Your task to perform on an android device: Find coffee shops on Maps Image 0: 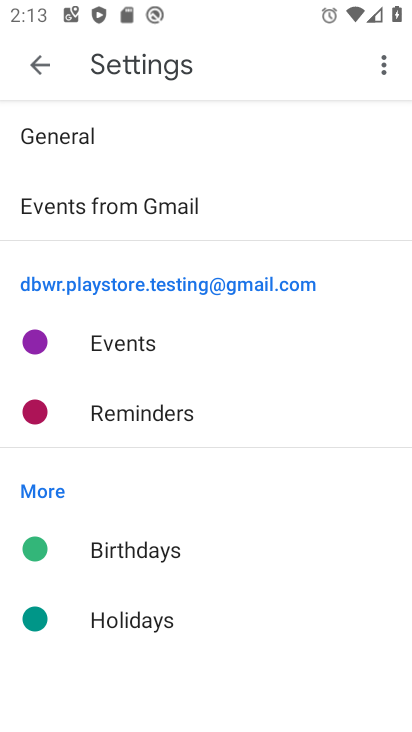
Step 0: press home button
Your task to perform on an android device: Find coffee shops on Maps Image 1: 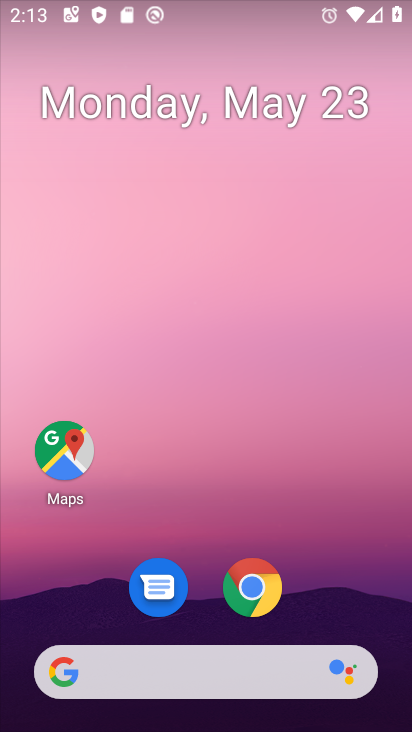
Step 1: click (62, 451)
Your task to perform on an android device: Find coffee shops on Maps Image 2: 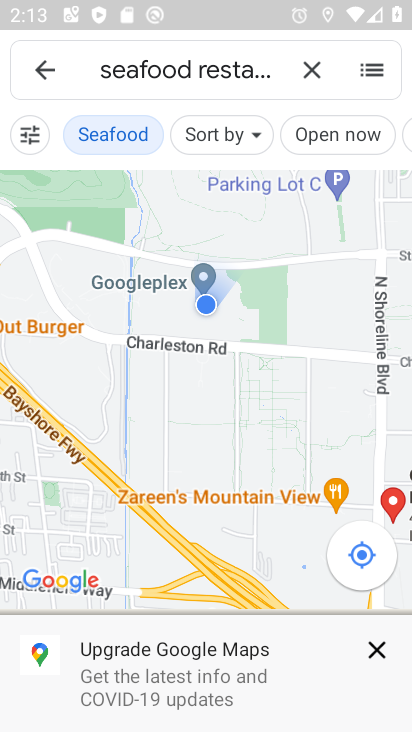
Step 2: click (293, 87)
Your task to perform on an android device: Find coffee shops on Maps Image 3: 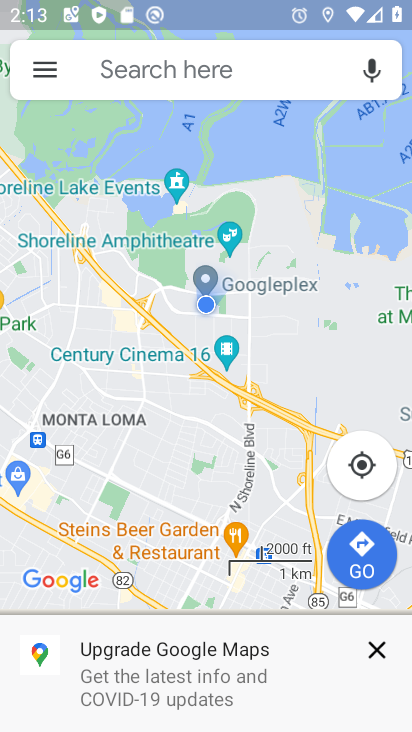
Step 3: click (251, 76)
Your task to perform on an android device: Find coffee shops on Maps Image 4: 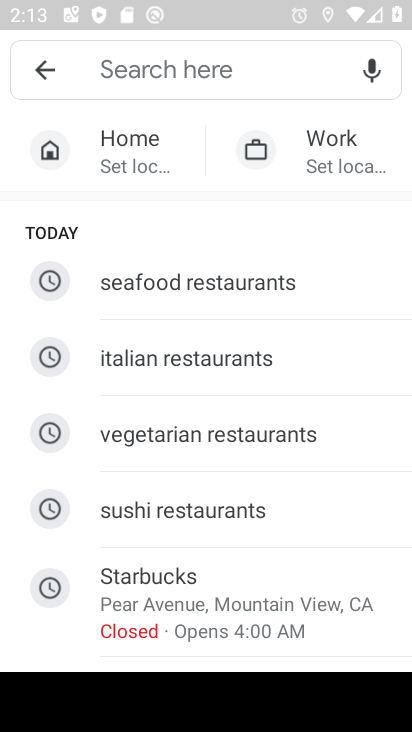
Step 4: click (254, 605)
Your task to perform on an android device: Find coffee shops on Maps Image 5: 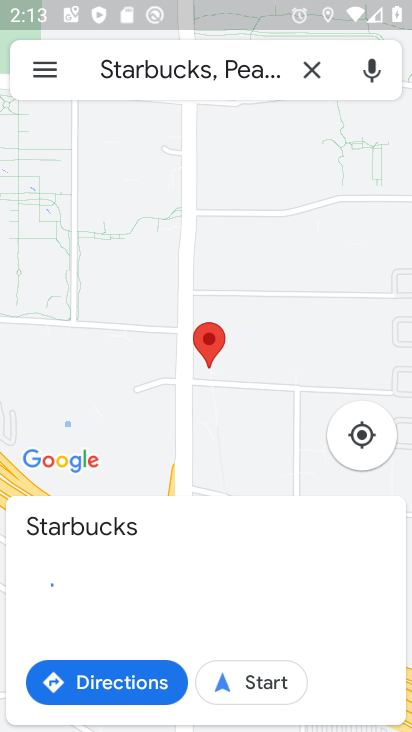
Step 5: task complete